Your task to perform on an android device: Go to eBay Image 0: 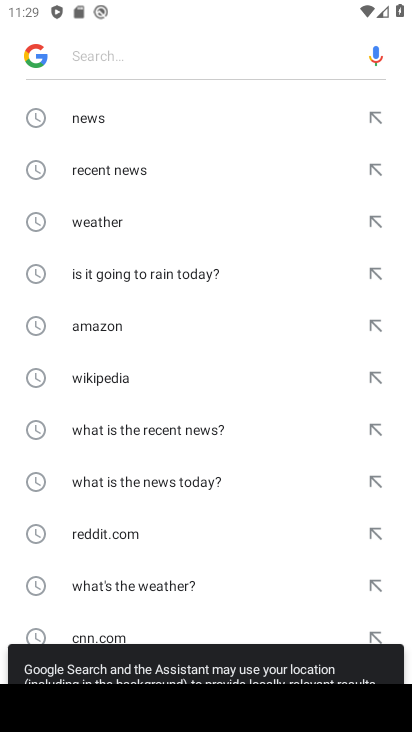
Step 0: press home button
Your task to perform on an android device: Go to eBay Image 1: 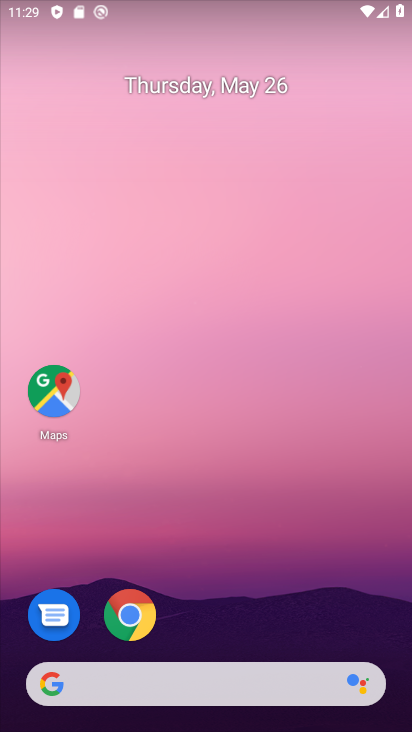
Step 1: click (146, 624)
Your task to perform on an android device: Go to eBay Image 2: 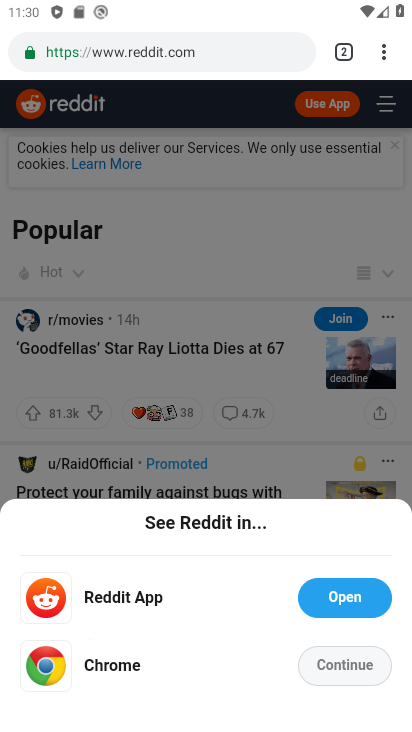
Step 2: click (146, 57)
Your task to perform on an android device: Go to eBay Image 3: 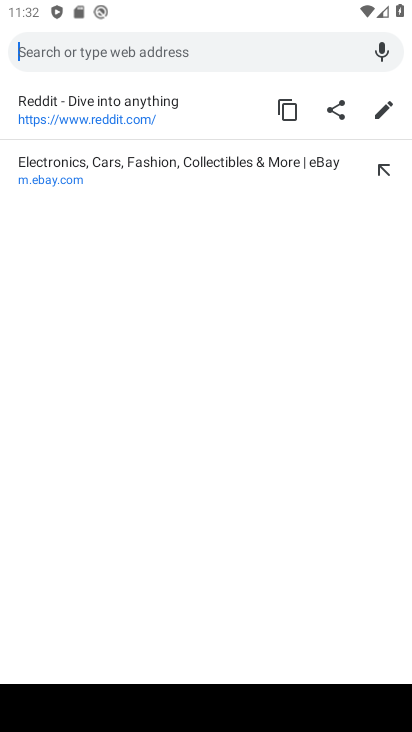
Step 3: type "eBay"
Your task to perform on an android device: Go to eBay Image 4: 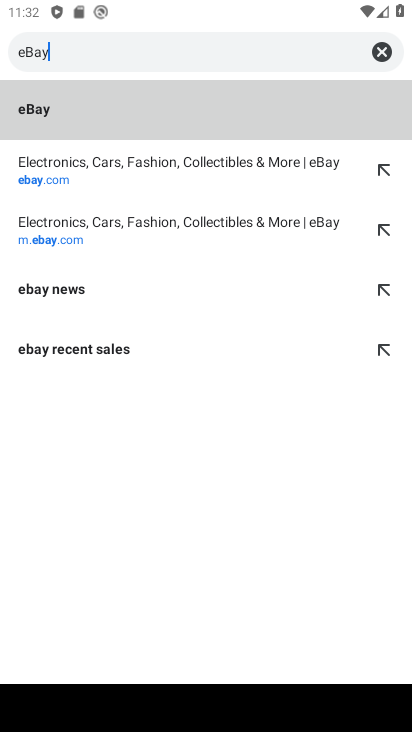
Step 4: click (24, 108)
Your task to perform on an android device: Go to eBay Image 5: 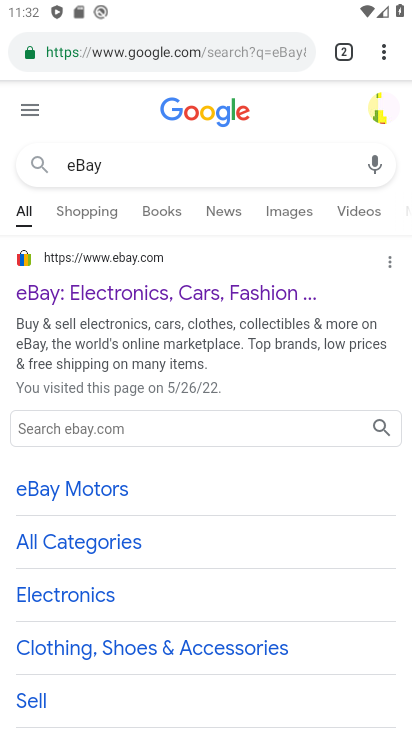
Step 5: click (187, 294)
Your task to perform on an android device: Go to eBay Image 6: 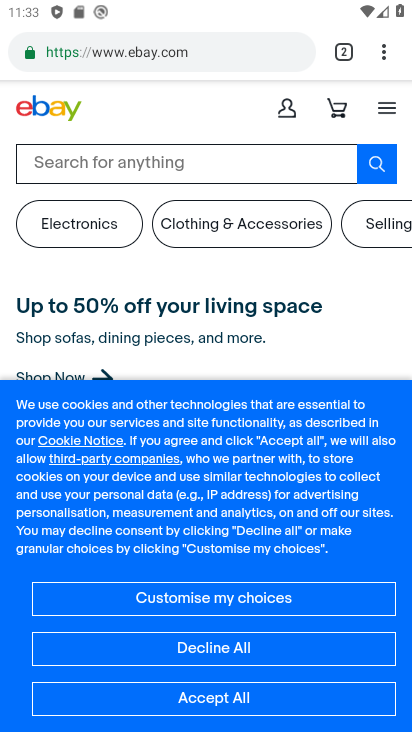
Step 6: task complete